Your task to perform on an android device: turn smart compose on in the gmail app Image 0: 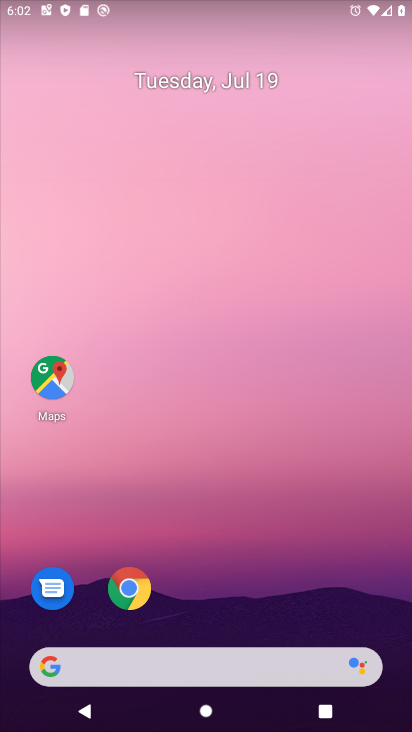
Step 0: drag from (195, 310) to (201, 41)
Your task to perform on an android device: turn smart compose on in the gmail app Image 1: 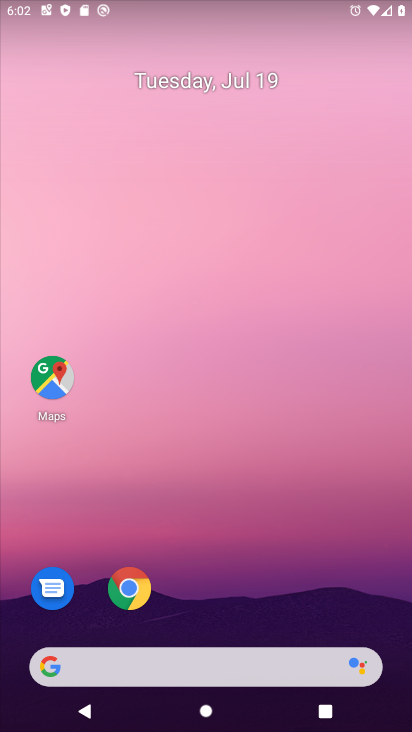
Step 1: drag from (203, 605) to (231, 107)
Your task to perform on an android device: turn smart compose on in the gmail app Image 2: 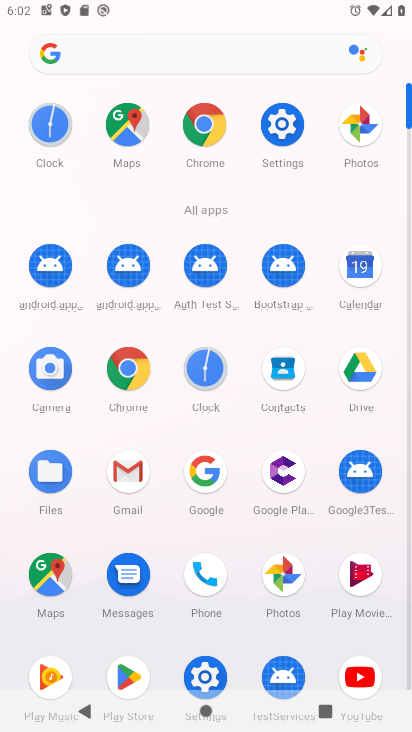
Step 2: click (132, 472)
Your task to perform on an android device: turn smart compose on in the gmail app Image 3: 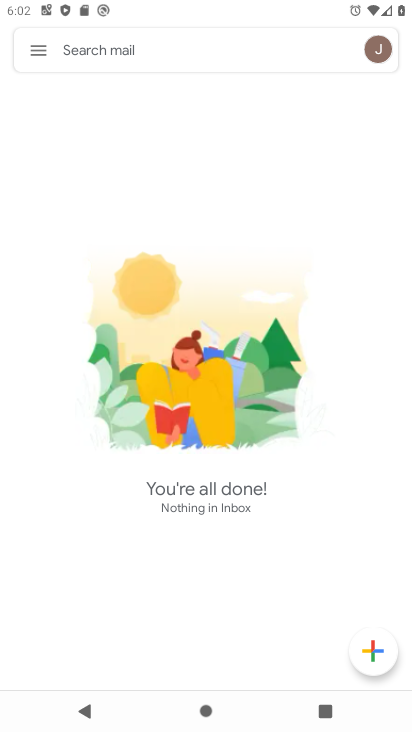
Step 3: click (47, 47)
Your task to perform on an android device: turn smart compose on in the gmail app Image 4: 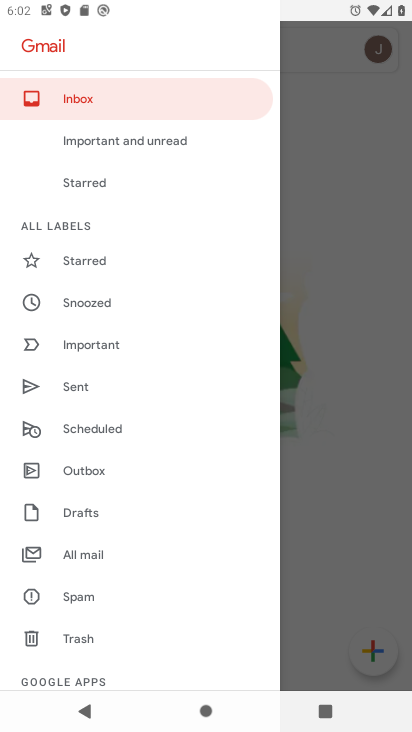
Step 4: drag from (81, 654) to (161, 100)
Your task to perform on an android device: turn smart compose on in the gmail app Image 5: 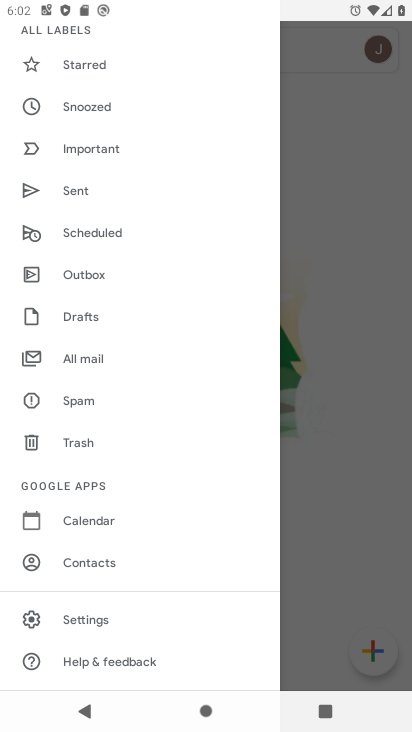
Step 5: click (173, 634)
Your task to perform on an android device: turn smart compose on in the gmail app Image 6: 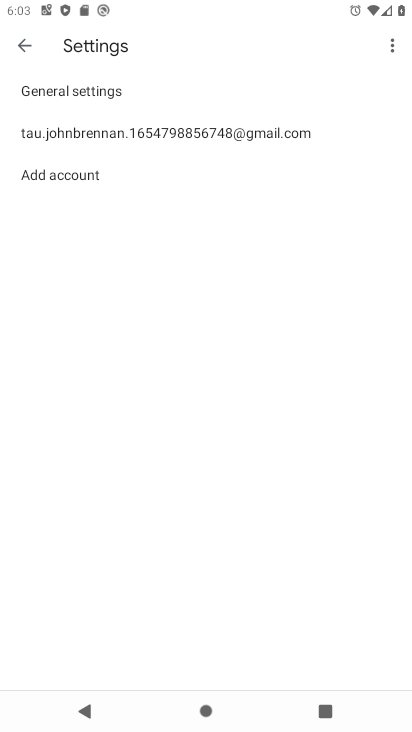
Step 6: click (150, 130)
Your task to perform on an android device: turn smart compose on in the gmail app Image 7: 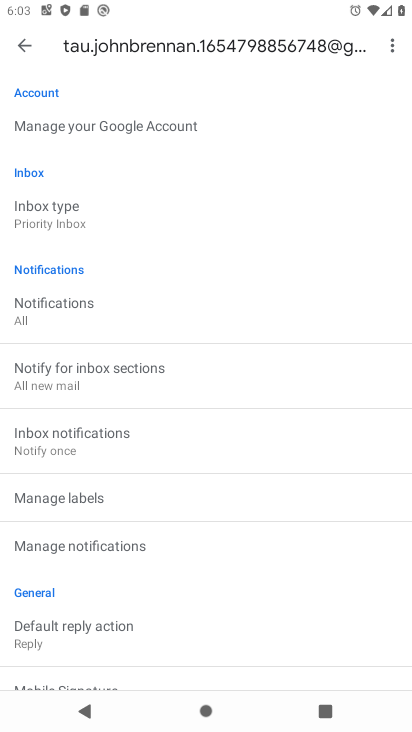
Step 7: task complete